Your task to perform on an android device: Show me recent news Image 0: 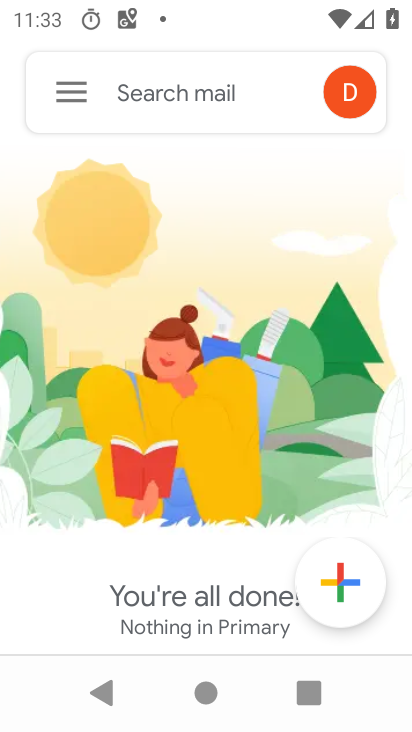
Step 0: press home button
Your task to perform on an android device: Show me recent news Image 1: 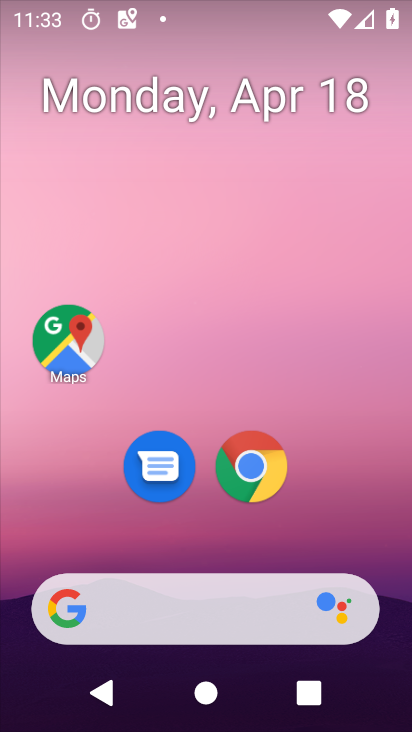
Step 1: drag from (297, 588) to (364, 113)
Your task to perform on an android device: Show me recent news Image 2: 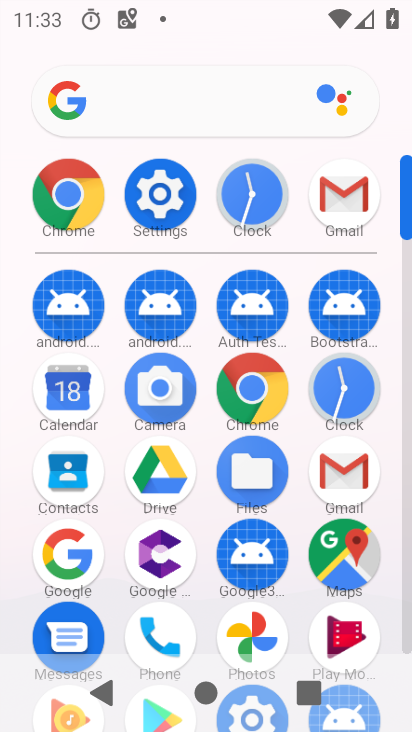
Step 2: click (407, 445)
Your task to perform on an android device: Show me recent news Image 3: 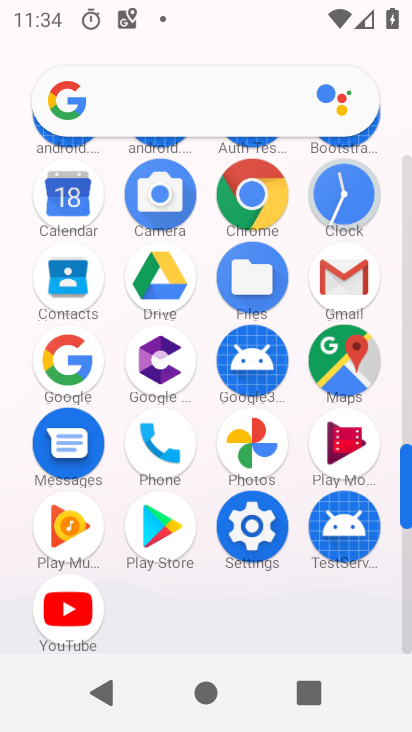
Step 3: click (82, 380)
Your task to perform on an android device: Show me recent news Image 4: 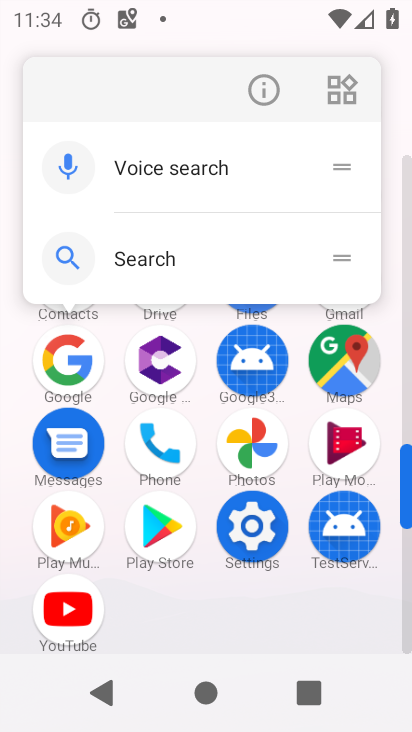
Step 4: click (79, 369)
Your task to perform on an android device: Show me recent news Image 5: 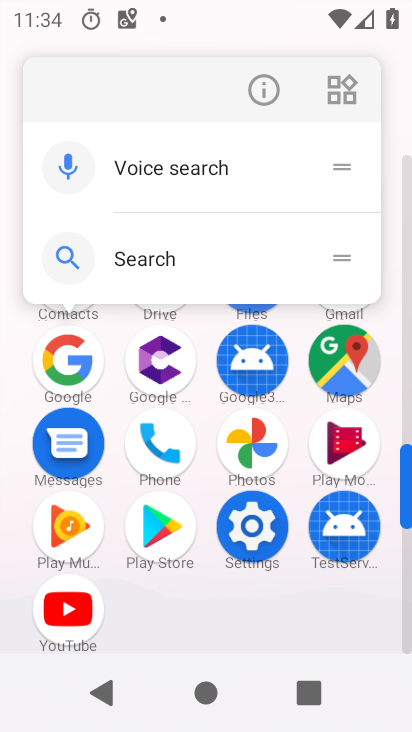
Step 5: click (79, 367)
Your task to perform on an android device: Show me recent news Image 6: 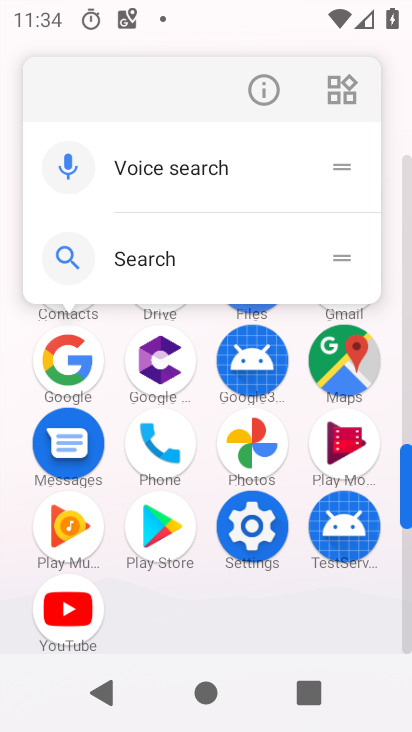
Step 6: click (58, 362)
Your task to perform on an android device: Show me recent news Image 7: 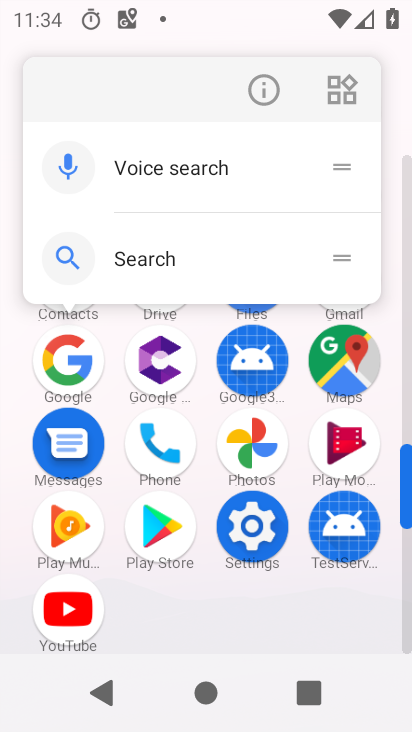
Step 7: click (59, 358)
Your task to perform on an android device: Show me recent news Image 8: 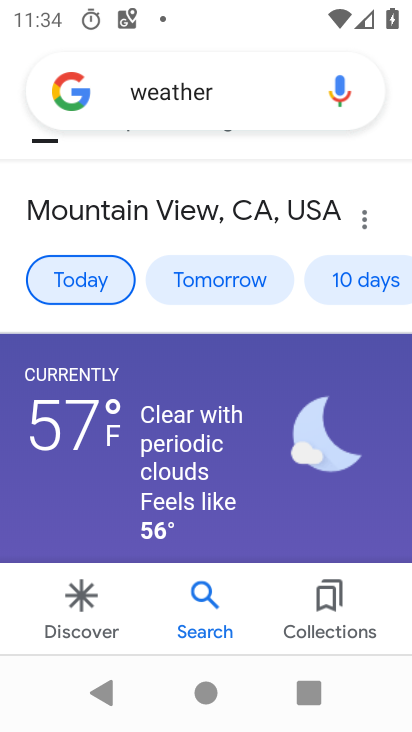
Step 8: click (264, 100)
Your task to perform on an android device: Show me recent news Image 9: 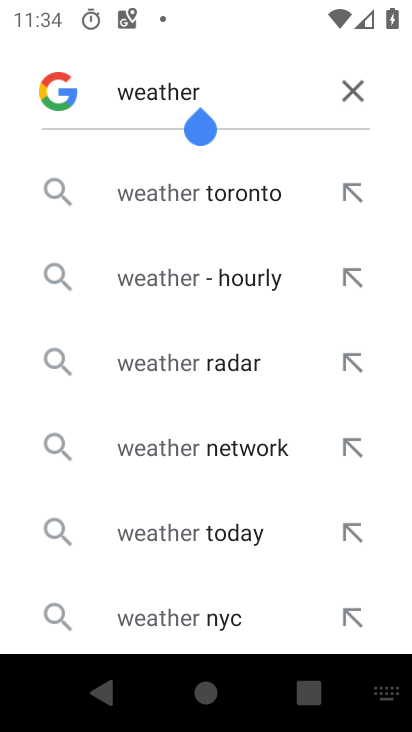
Step 9: click (343, 121)
Your task to perform on an android device: Show me recent news Image 10: 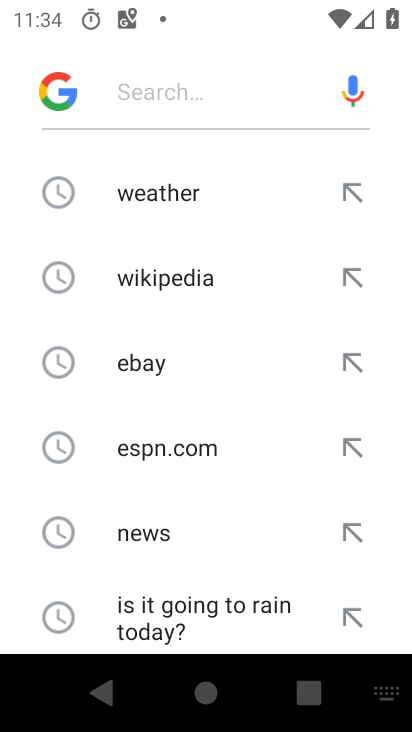
Step 10: click (177, 544)
Your task to perform on an android device: Show me recent news Image 11: 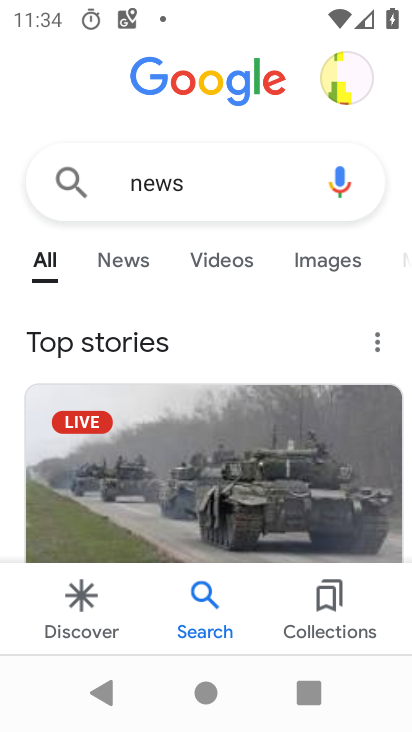
Step 11: drag from (250, 443) to (209, 268)
Your task to perform on an android device: Show me recent news Image 12: 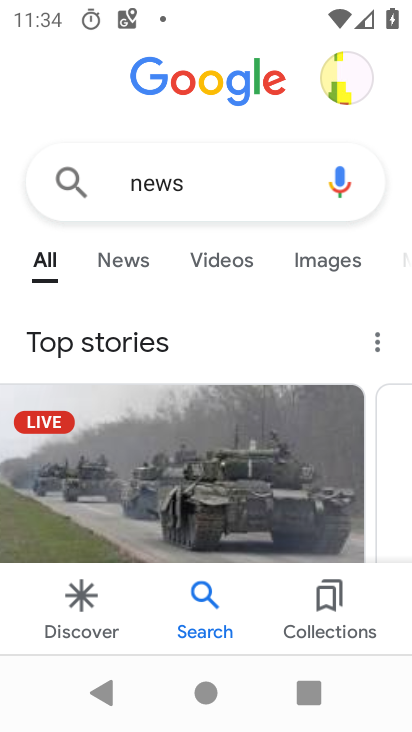
Step 12: drag from (203, 474) to (298, 167)
Your task to perform on an android device: Show me recent news Image 13: 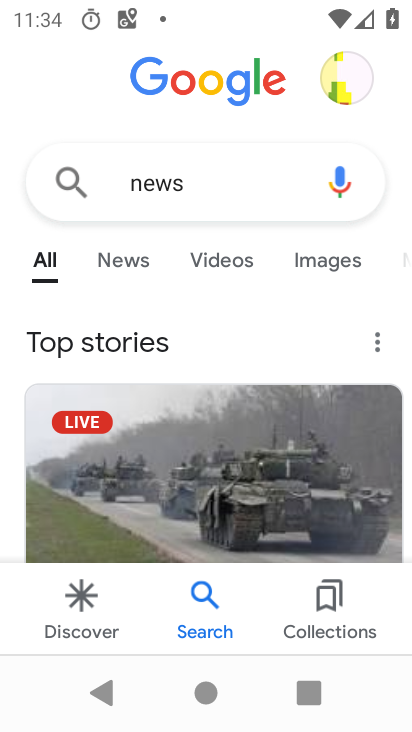
Step 13: drag from (252, 403) to (370, 85)
Your task to perform on an android device: Show me recent news Image 14: 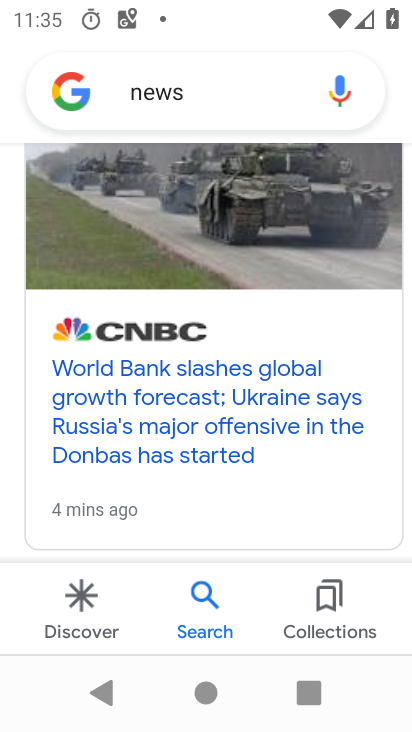
Step 14: drag from (261, 306) to (168, 731)
Your task to perform on an android device: Show me recent news Image 15: 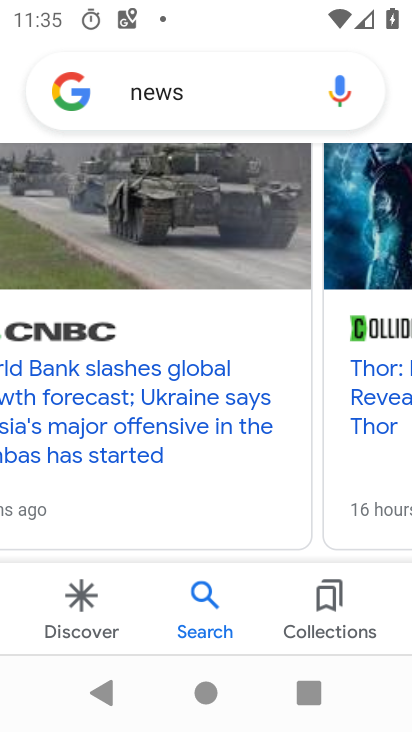
Step 15: drag from (238, 211) to (227, 669)
Your task to perform on an android device: Show me recent news Image 16: 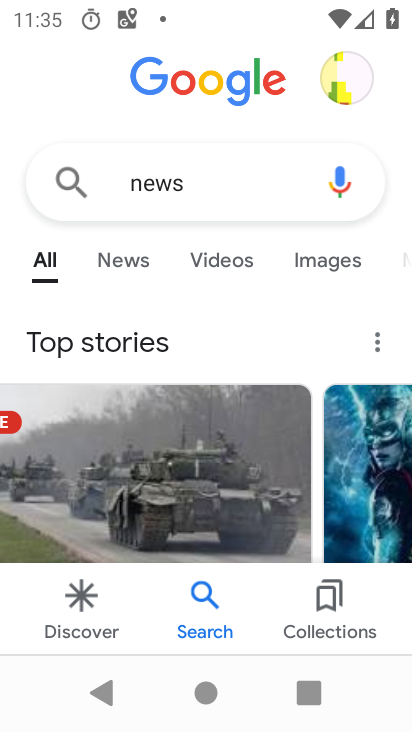
Step 16: click (129, 260)
Your task to perform on an android device: Show me recent news Image 17: 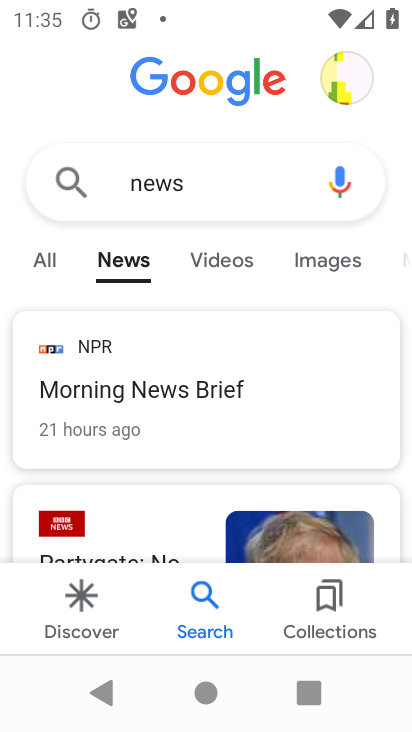
Step 17: task complete